Your task to perform on an android device: set the timer Image 0: 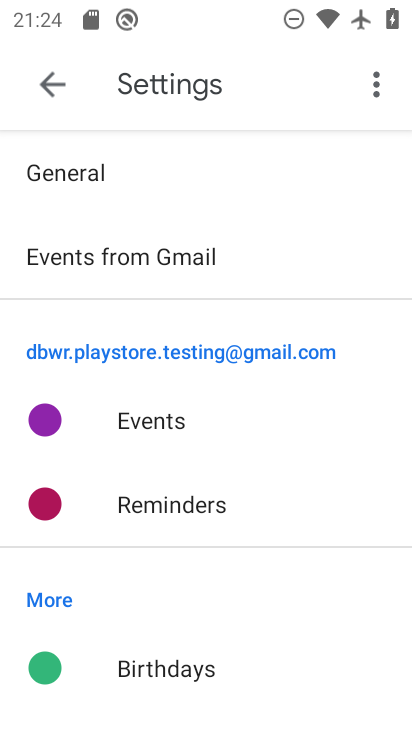
Step 0: press home button
Your task to perform on an android device: set the timer Image 1: 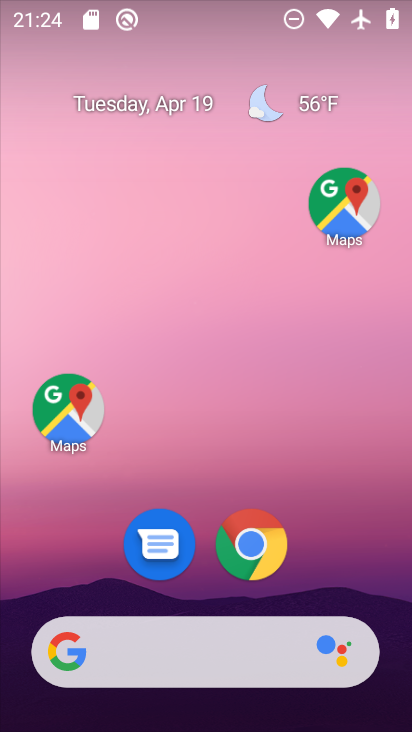
Step 1: drag from (202, 552) to (311, 33)
Your task to perform on an android device: set the timer Image 2: 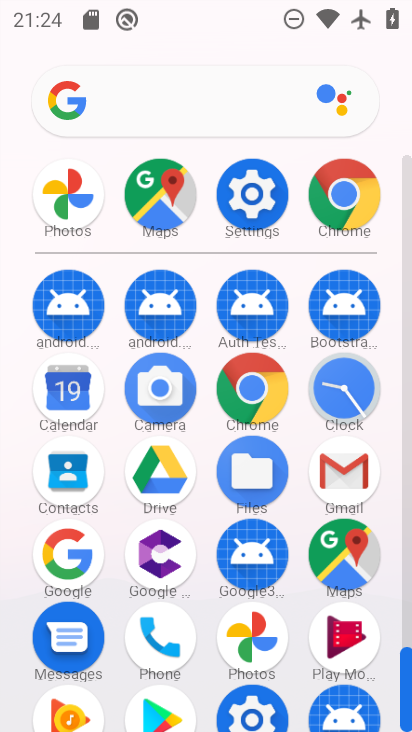
Step 2: click (348, 402)
Your task to perform on an android device: set the timer Image 3: 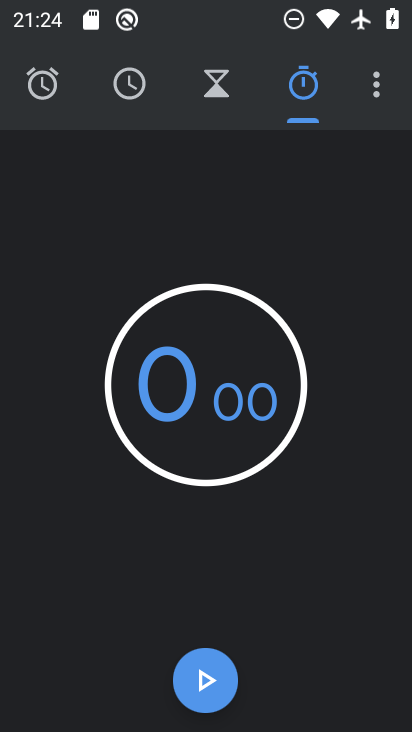
Step 3: click (219, 91)
Your task to perform on an android device: set the timer Image 4: 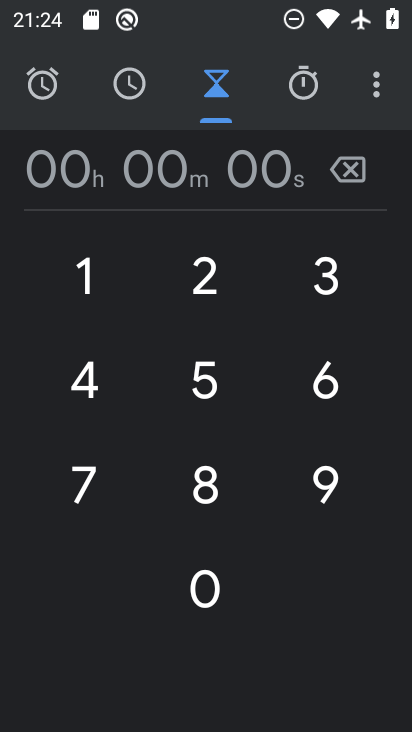
Step 4: click (209, 268)
Your task to perform on an android device: set the timer Image 5: 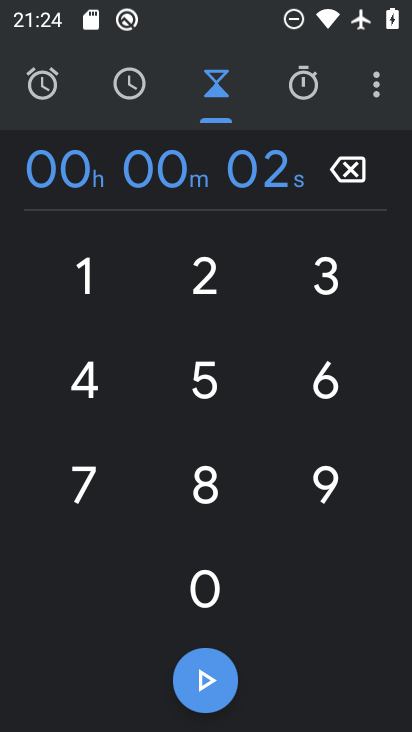
Step 5: click (209, 268)
Your task to perform on an android device: set the timer Image 6: 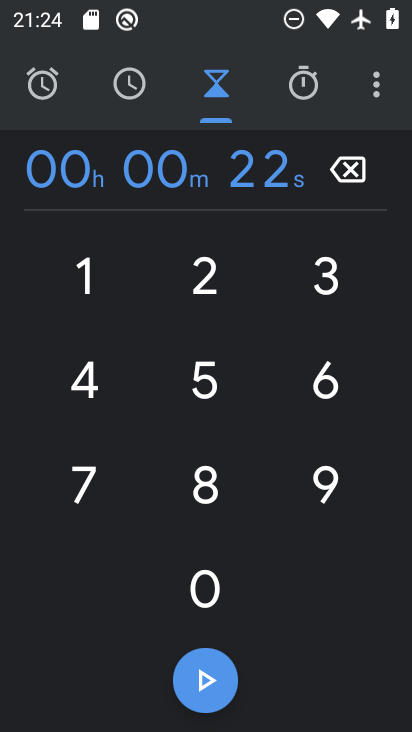
Step 6: click (210, 677)
Your task to perform on an android device: set the timer Image 7: 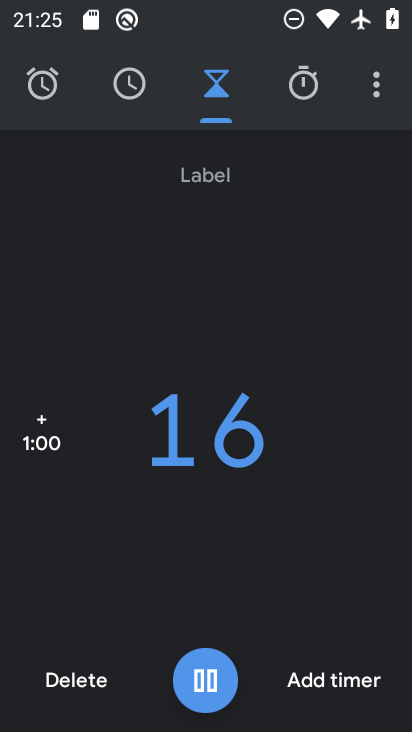
Step 7: click (213, 681)
Your task to perform on an android device: set the timer Image 8: 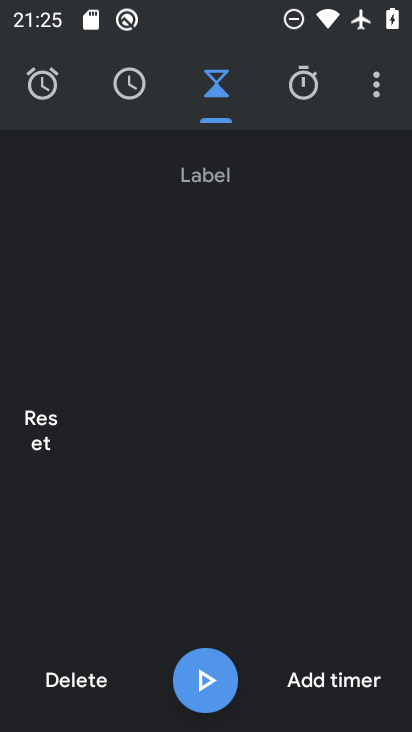
Step 8: task complete